Your task to perform on an android device: Show me popular videos on Youtube Image 0: 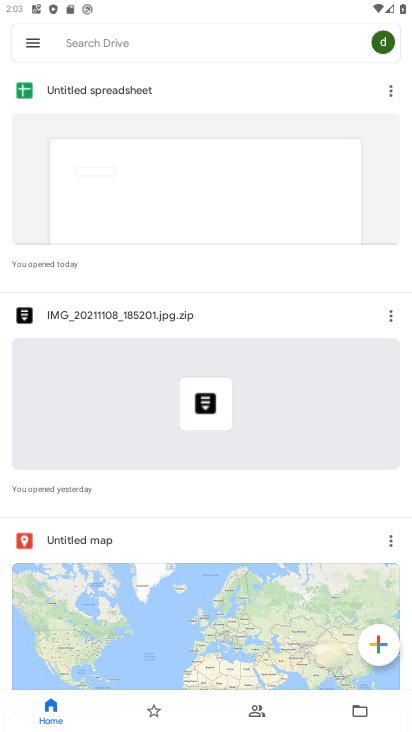
Step 0: press home button
Your task to perform on an android device: Show me popular videos on Youtube Image 1: 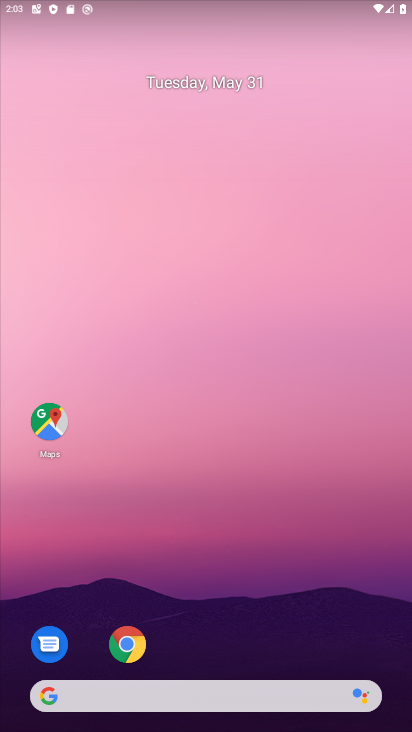
Step 1: drag from (391, 695) to (331, 78)
Your task to perform on an android device: Show me popular videos on Youtube Image 2: 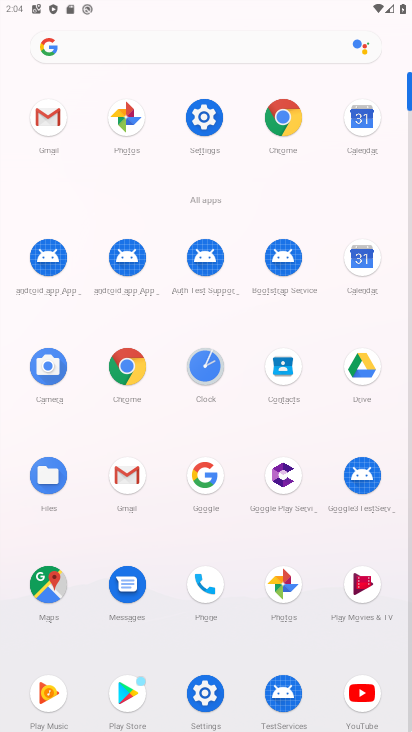
Step 2: click (365, 682)
Your task to perform on an android device: Show me popular videos on Youtube Image 3: 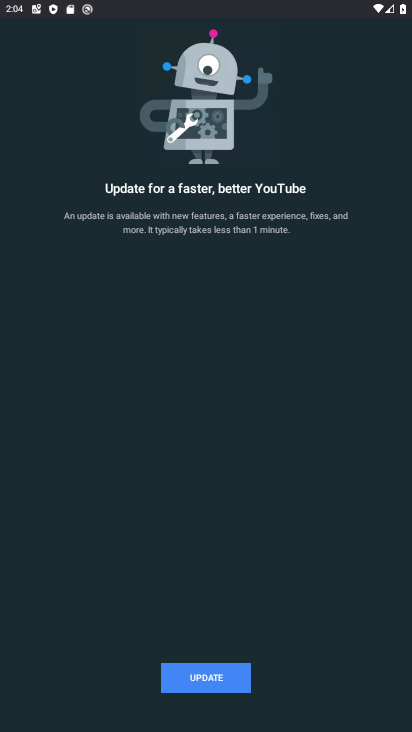
Step 3: click (220, 675)
Your task to perform on an android device: Show me popular videos on Youtube Image 4: 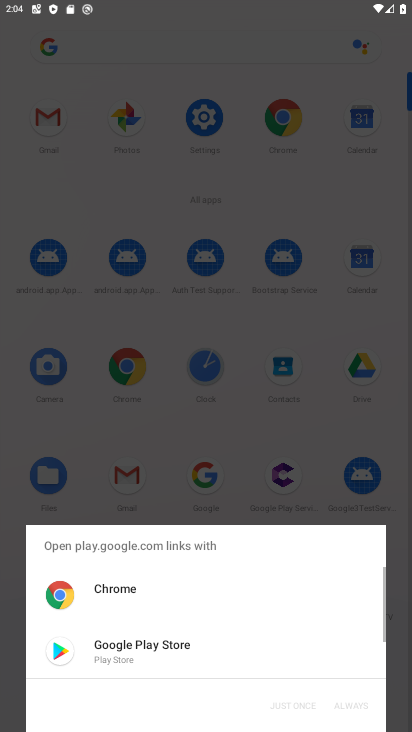
Step 4: click (118, 643)
Your task to perform on an android device: Show me popular videos on Youtube Image 5: 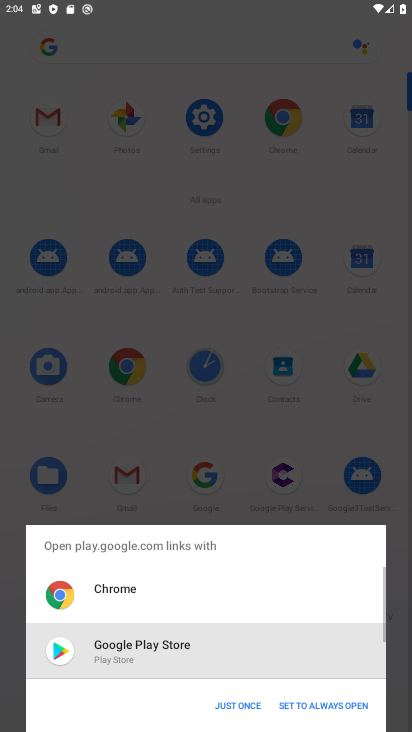
Step 5: click (235, 706)
Your task to perform on an android device: Show me popular videos on Youtube Image 6: 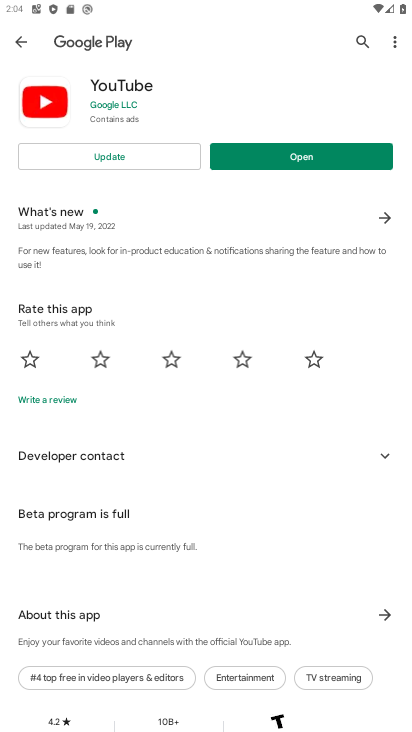
Step 6: click (158, 157)
Your task to perform on an android device: Show me popular videos on Youtube Image 7: 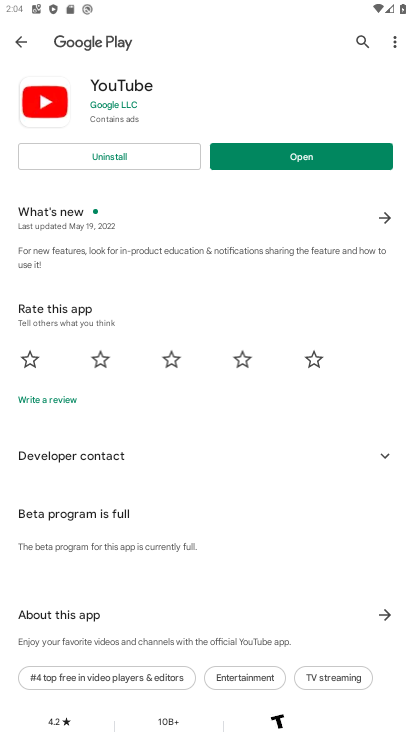
Step 7: click (312, 154)
Your task to perform on an android device: Show me popular videos on Youtube Image 8: 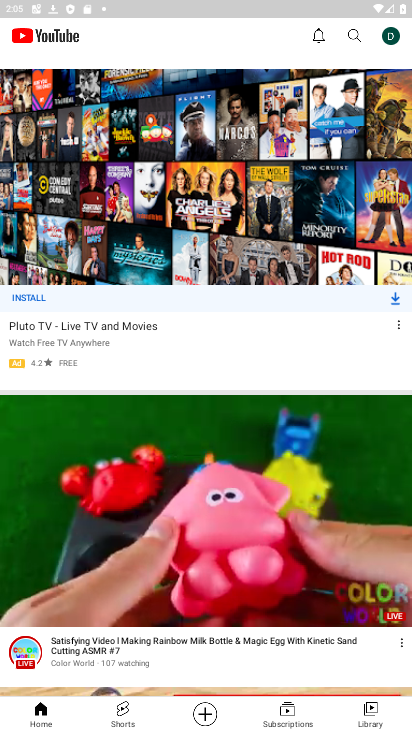
Step 8: click (348, 35)
Your task to perform on an android device: Show me popular videos on Youtube Image 9: 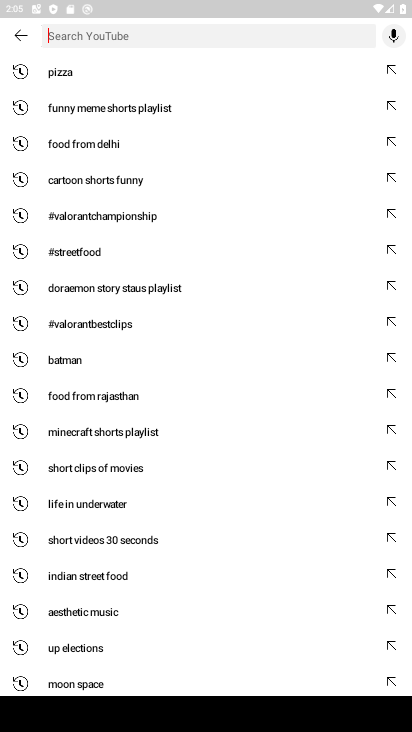
Step 9: type " popular videos "
Your task to perform on an android device: Show me popular videos on Youtube Image 10: 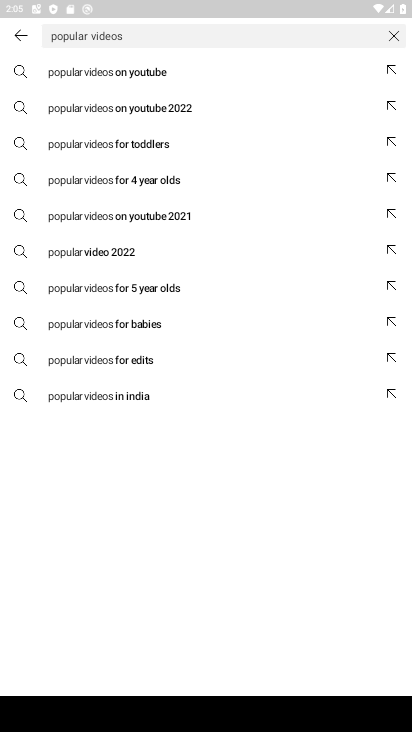
Step 10: click (112, 69)
Your task to perform on an android device: Show me popular videos on Youtube Image 11: 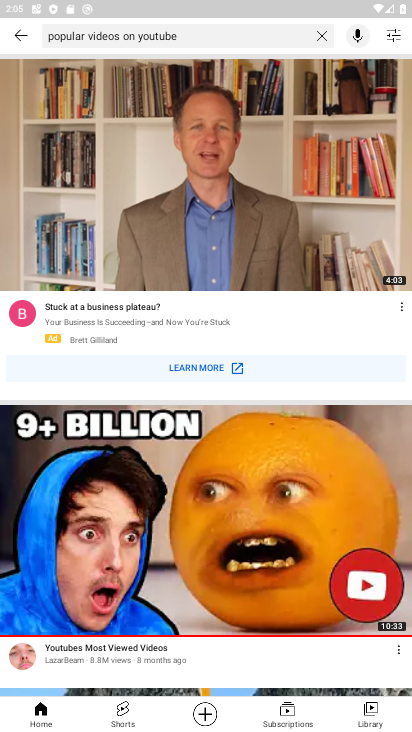
Step 11: task complete